Your task to perform on an android device: delete the emails in spam in the gmail app Image 0: 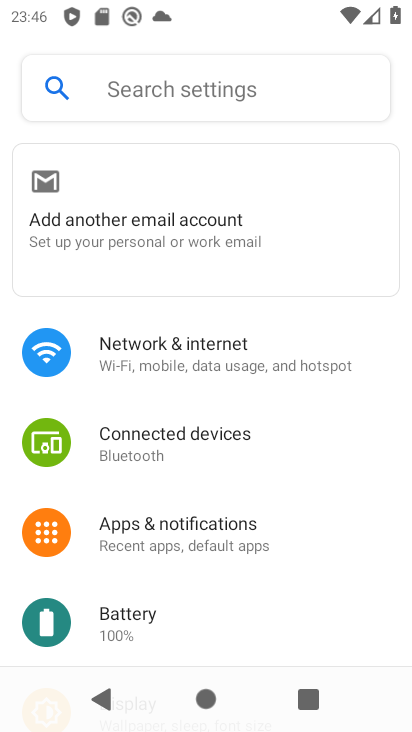
Step 0: press home button
Your task to perform on an android device: delete the emails in spam in the gmail app Image 1: 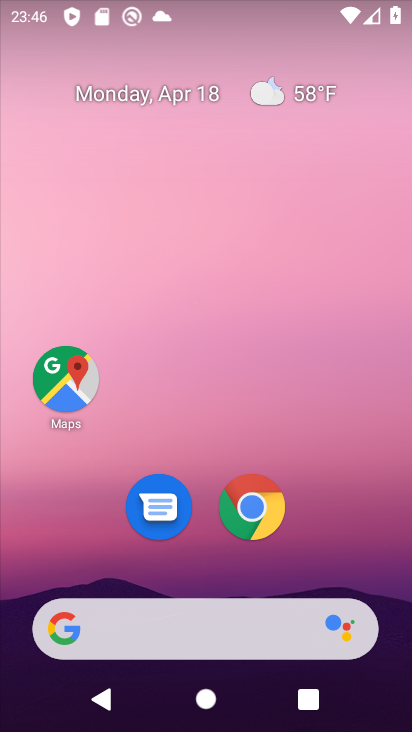
Step 1: drag from (212, 572) to (283, 10)
Your task to perform on an android device: delete the emails in spam in the gmail app Image 2: 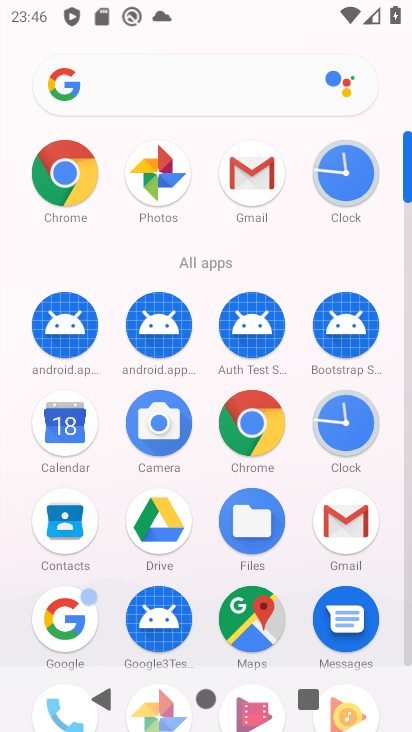
Step 2: click (341, 511)
Your task to perform on an android device: delete the emails in spam in the gmail app Image 3: 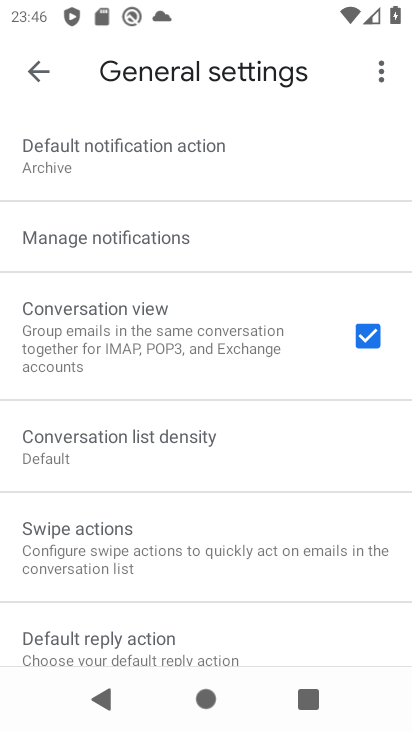
Step 3: click (39, 68)
Your task to perform on an android device: delete the emails in spam in the gmail app Image 4: 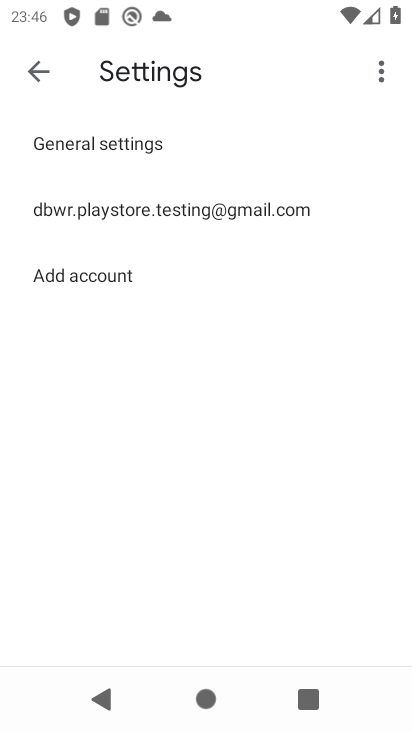
Step 4: click (42, 77)
Your task to perform on an android device: delete the emails in spam in the gmail app Image 5: 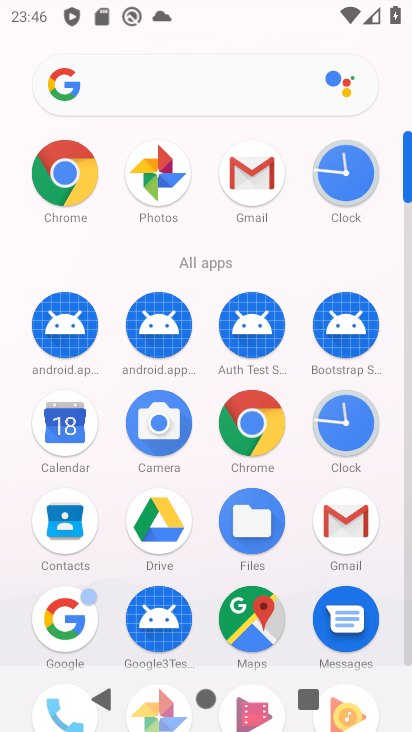
Step 5: click (253, 165)
Your task to perform on an android device: delete the emails in spam in the gmail app Image 6: 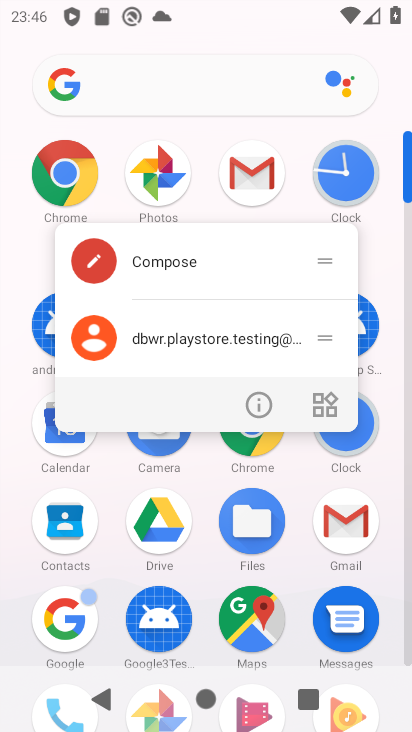
Step 6: click (252, 159)
Your task to perform on an android device: delete the emails in spam in the gmail app Image 7: 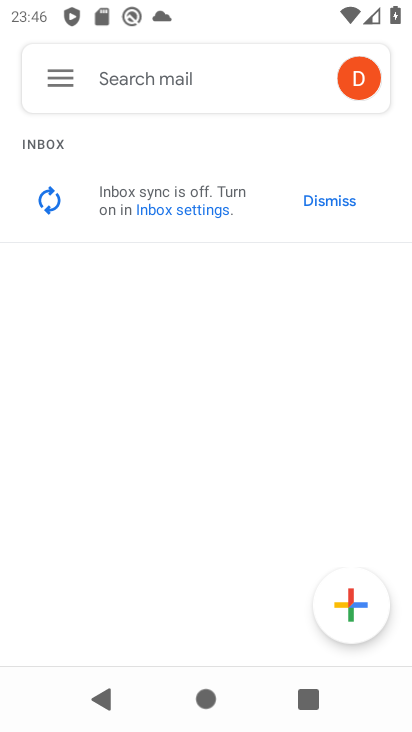
Step 7: click (61, 86)
Your task to perform on an android device: delete the emails in spam in the gmail app Image 8: 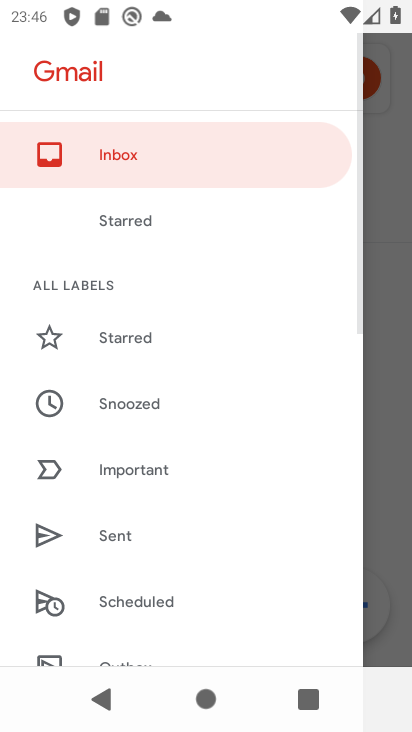
Step 8: drag from (139, 606) to (168, 53)
Your task to perform on an android device: delete the emails in spam in the gmail app Image 9: 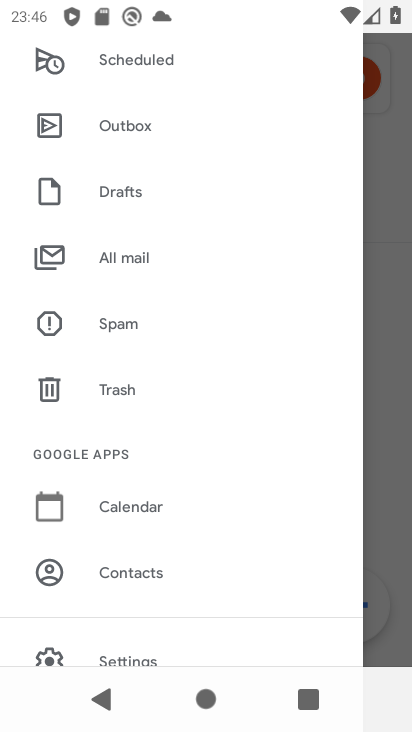
Step 9: click (137, 315)
Your task to perform on an android device: delete the emails in spam in the gmail app Image 10: 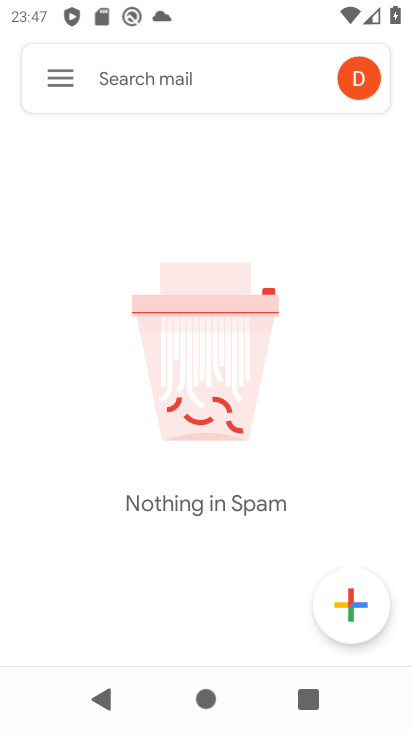
Step 10: task complete